Your task to perform on an android device: Show me the alarms in the clock app Image 0: 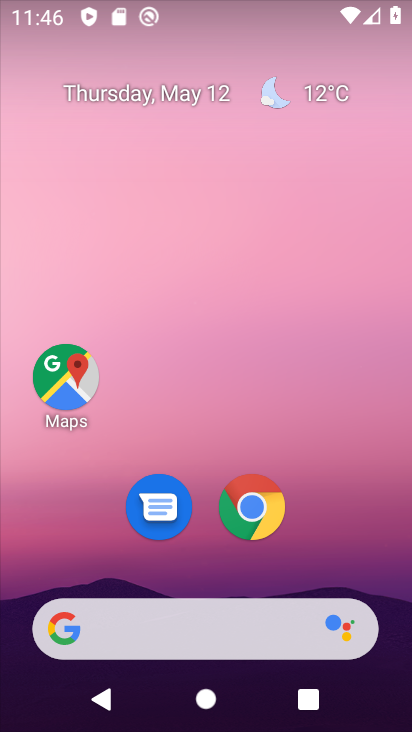
Step 0: drag from (345, 511) to (345, 158)
Your task to perform on an android device: Show me the alarms in the clock app Image 1: 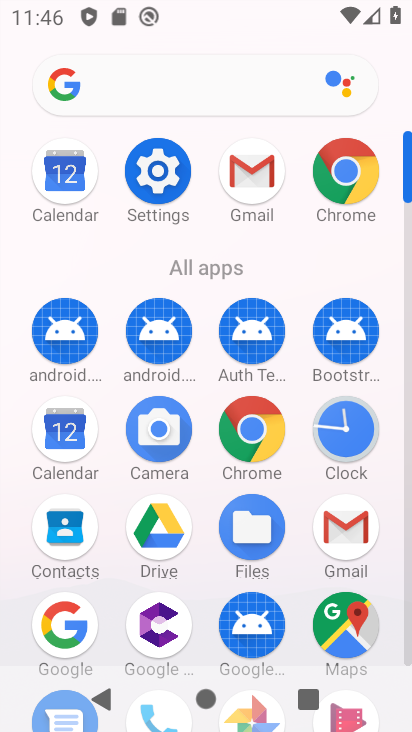
Step 1: click (350, 448)
Your task to perform on an android device: Show me the alarms in the clock app Image 2: 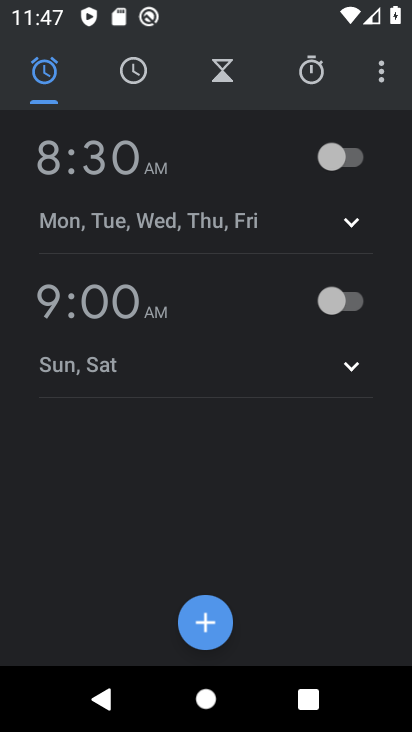
Step 2: task complete